Your task to perform on an android device: clear history in the chrome app Image 0: 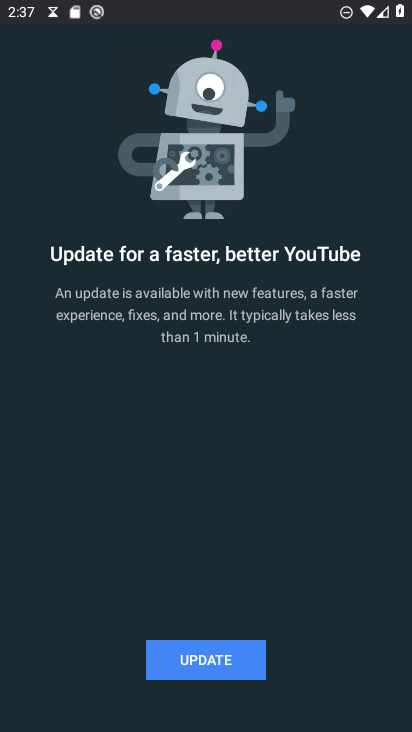
Step 0: press back button
Your task to perform on an android device: clear history in the chrome app Image 1: 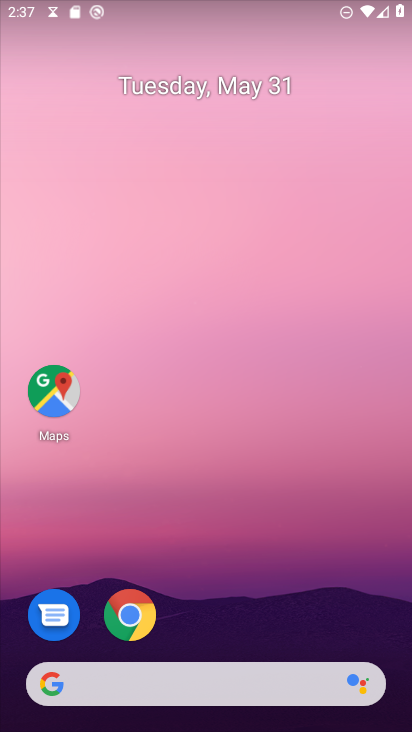
Step 1: drag from (169, 601) to (79, 184)
Your task to perform on an android device: clear history in the chrome app Image 2: 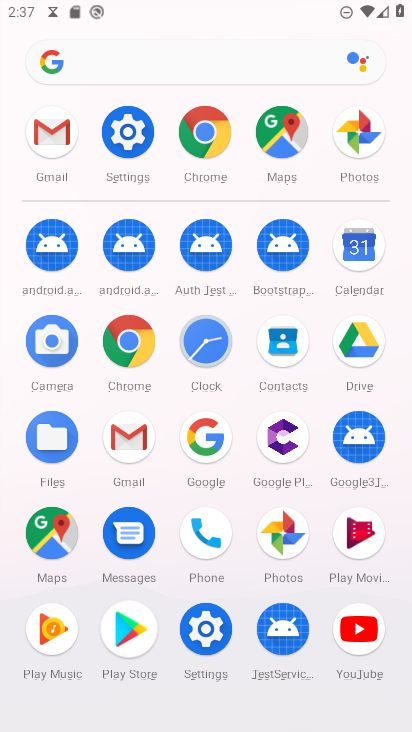
Step 2: click (199, 137)
Your task to perform on an android device: clear history in the chrome app Image 3: 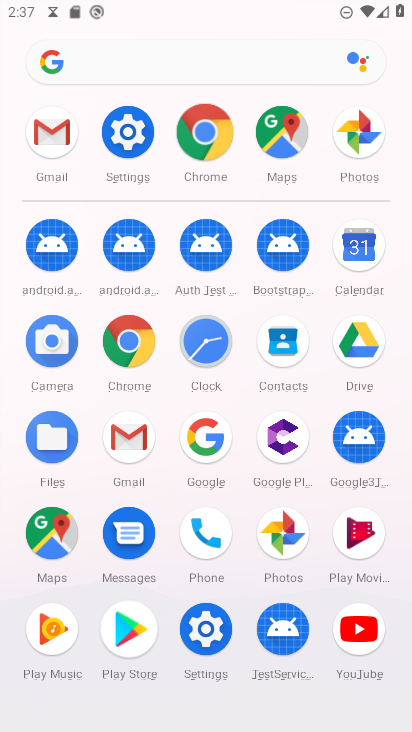
Step 3: click (199, 134)
Your task to perform on an android device: clear history in the chrome app Image 4: 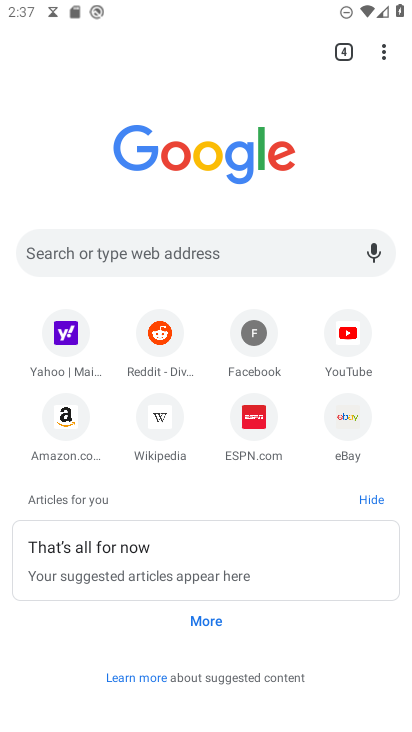
Step 4: click (380, 35)
Your task to perform on an android device: clear history in the chrome app Image 5: 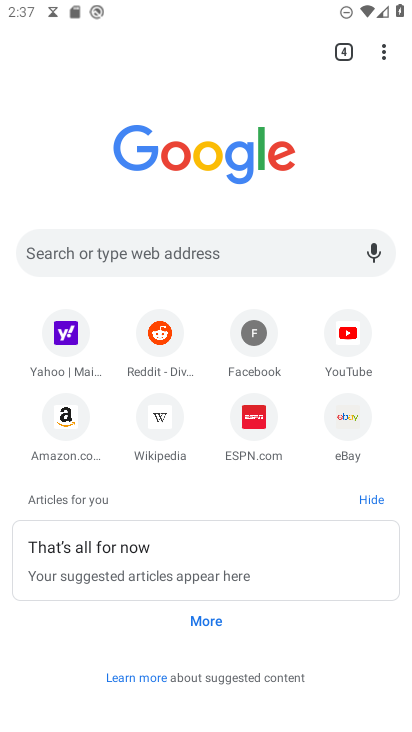
Step 5: drag from (391, 60) to (206, 484)
Your task to perform on an android device: clear history in the chrome app Image 6: 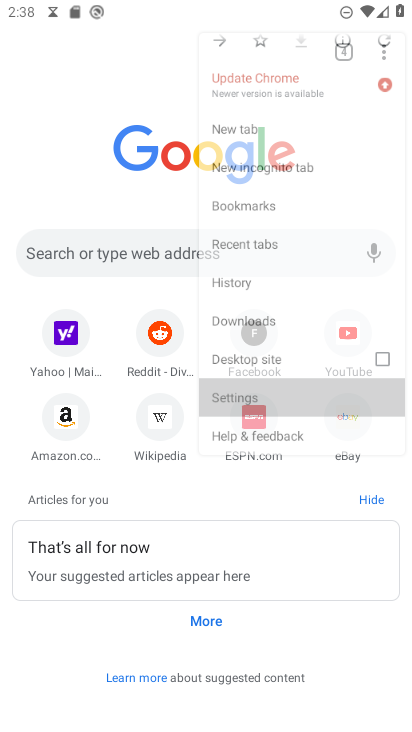
Step 6: click (206, 484)
Your task to perform on an android device: clear history in the chrome app Image 7: 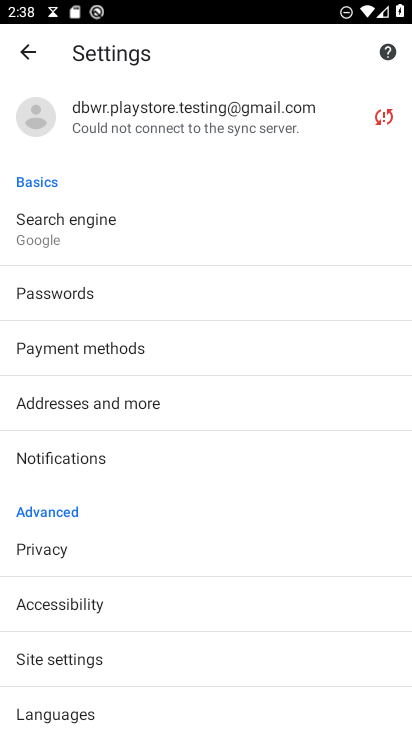
Step 7: drag from (76, 638) to (5, 315)
Your task to perform on an android device: clear history in the chrome app Image 8: 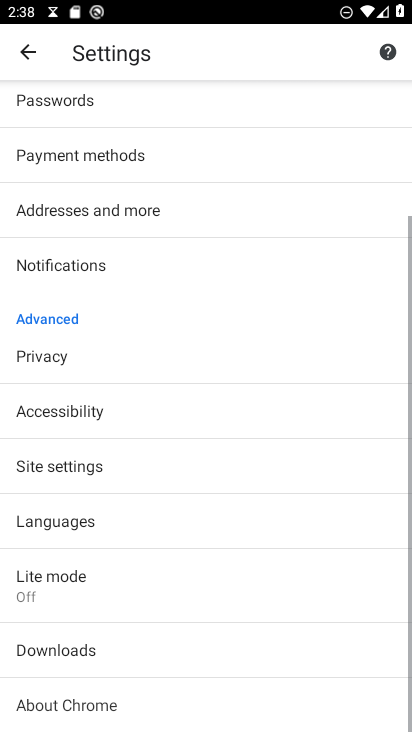
Step 8: drag from (90, 573) to (39, 323)
Your task to perform on an android device: clear history in the chrome app Image 9: 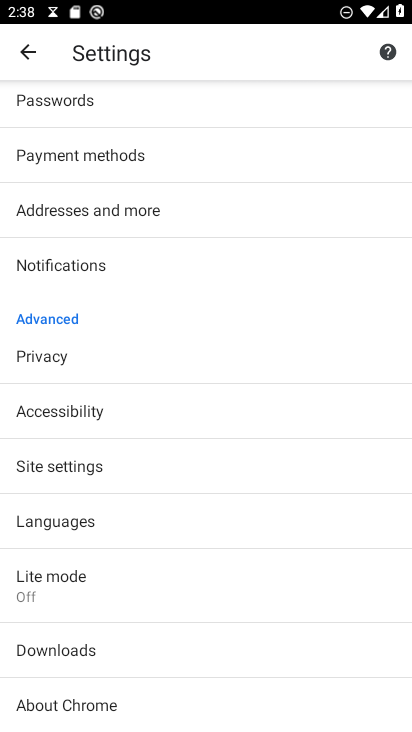
Step 9: drag from (83, 610) to (79, 264)
Your task to perform on an android device: clear history in the chrome app Image 10: 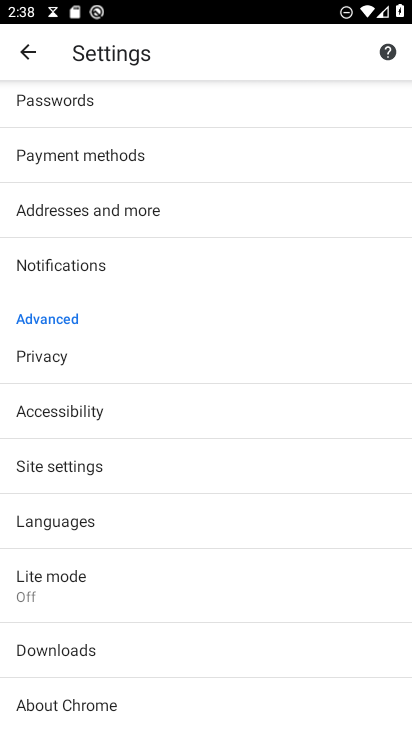
Step 10: drag from (112, 623) to (83, 268)
Your task to perform on an android device: clear history in the chrome app Image 11: 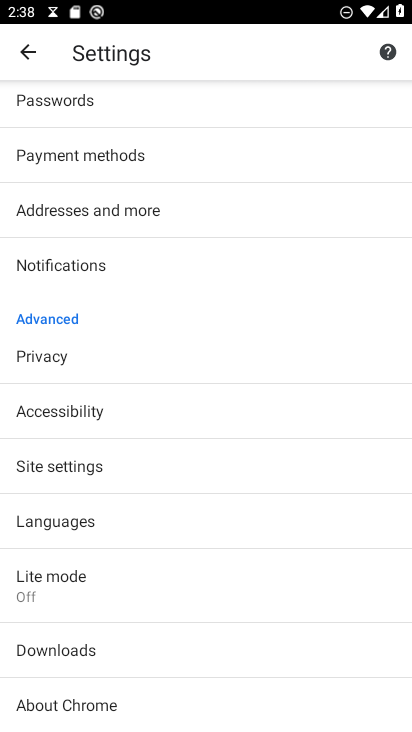
Step 11: click (22, 54)
Your task to perform on an android device: clear history in the chrome app Image 12: 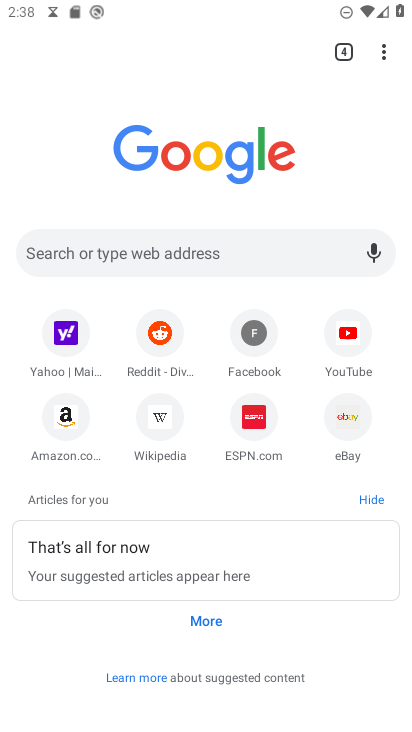
Step 12: click (387, 49)
Your task to perform on an android device: clear history in the chrome app Image 13: 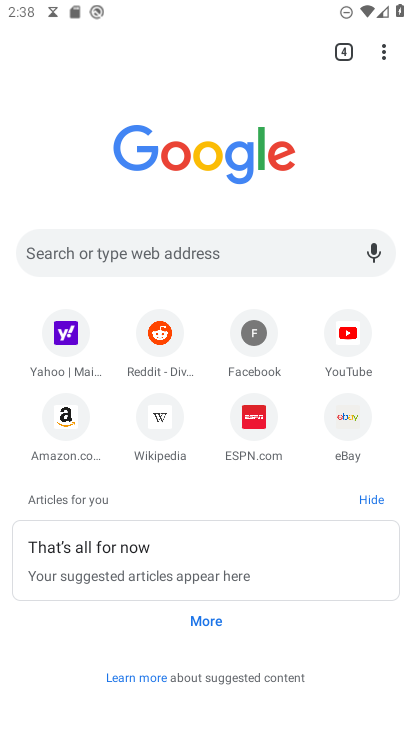
Step 13: drag from (380, 57) to (187, 352)
Your task to perform on an android device: clear history in the chrome app Image 14: 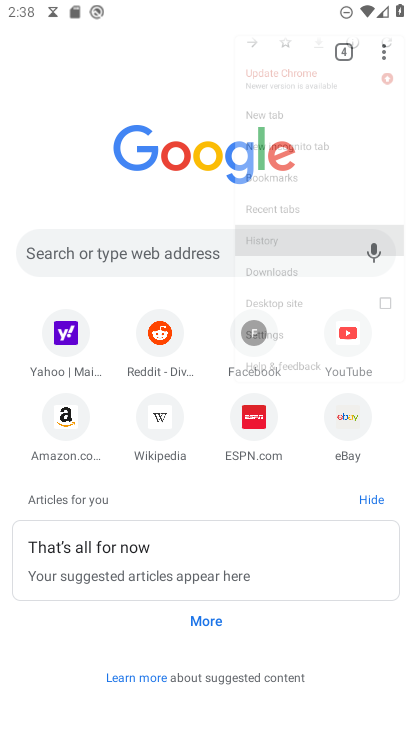
Step 14: click (191, 354)
Your task to perform on an android device: clear history in the chrome app Image 15: 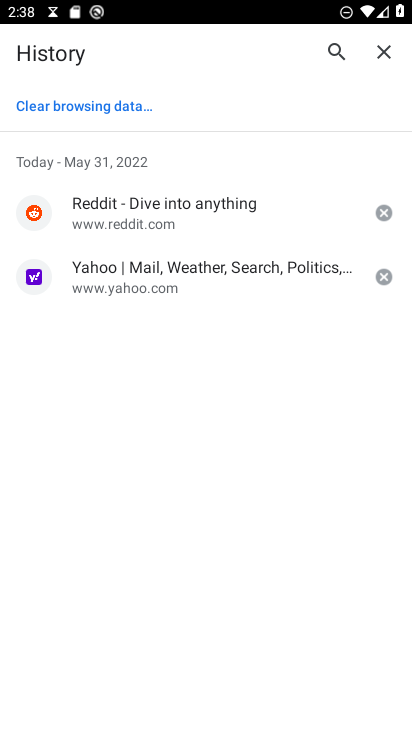
Step 15: click (77, 110)
Your task to perform on an android device: clear history in the chrome app Image 16: 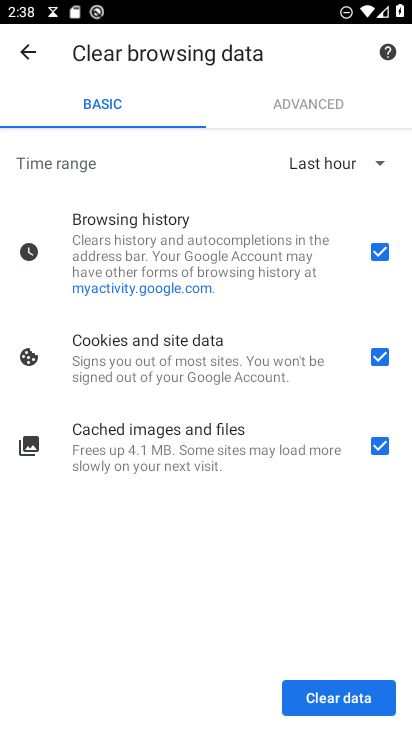
Step 16: task complete